Your task to perform on an android device: check android version Image 0: 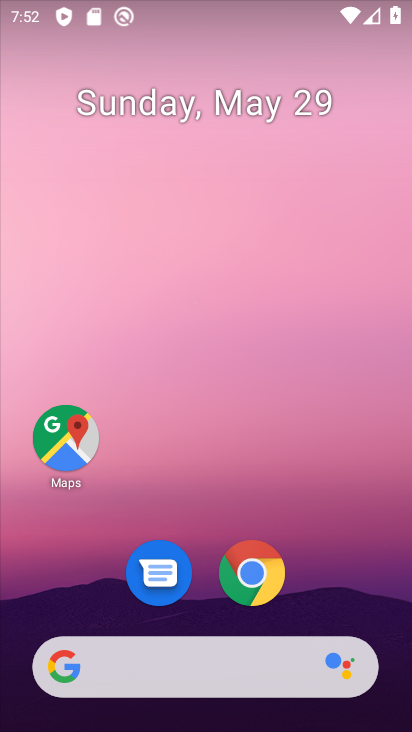
Step 0: drag from (239, 673) to (86, 125)
Your task to perform on an android device: check android version Image 1: 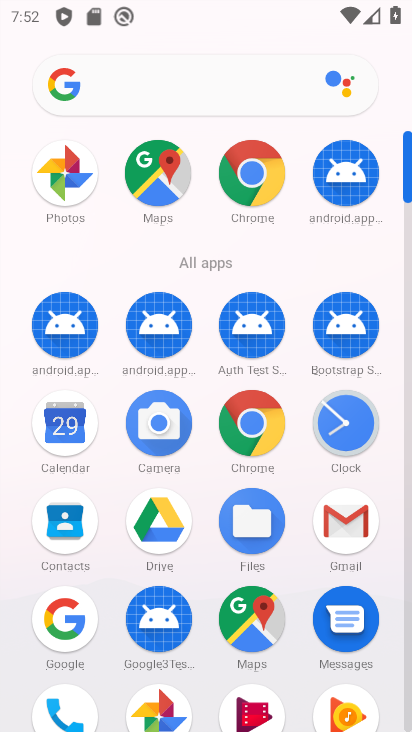
Step 1: drag from (257, 591) to (223, 170)
Your task to perform on an android device: check android version Image 2: 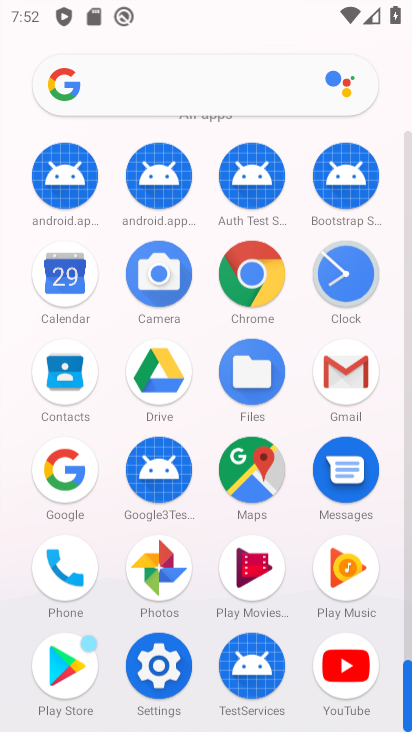
Step 2: drag from (267, 538) to (217, 210)
Your task to perform on an android device: check android version Image 3: 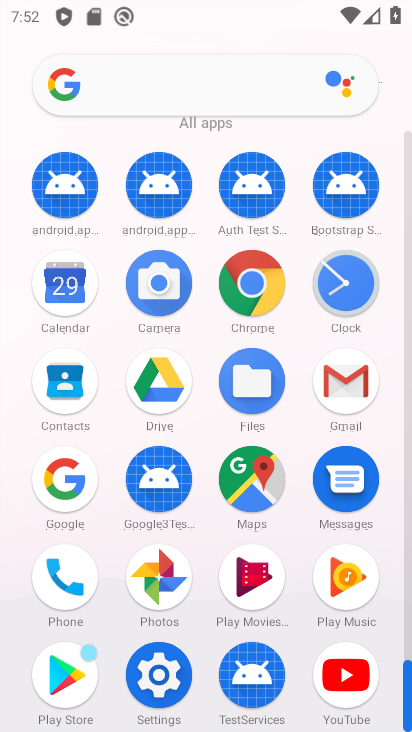
Step 3: click (155, 682)
Your task to perform on an android device: check android version Image 4: 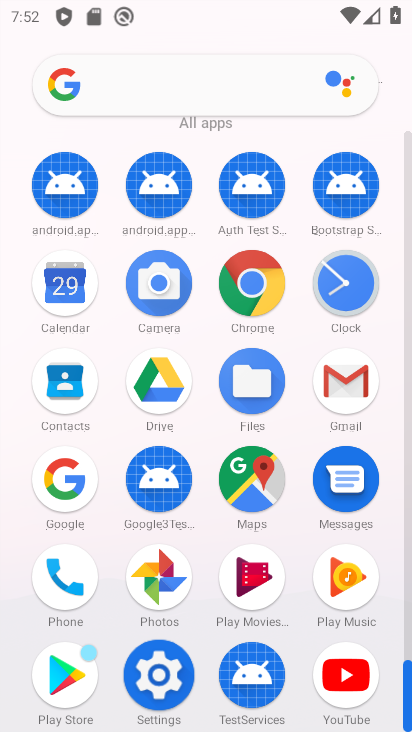
Step 4: click (155, 682)
Your task to perform on an android device: check android version Image 5: 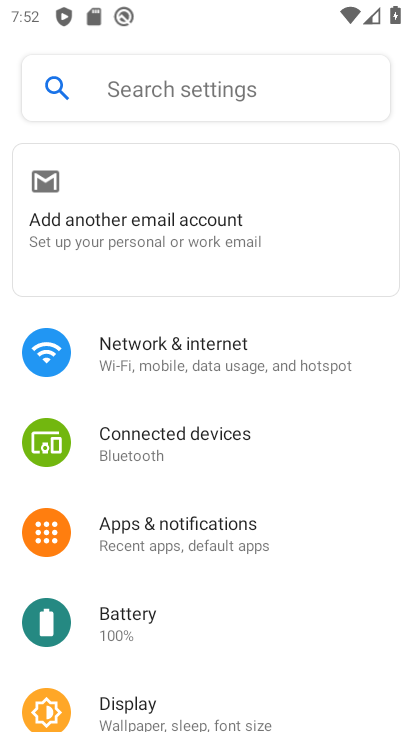
Step 5: drag from (183, 565) to (183, 336)
Your task to perform on an android device: check android version Image 6: 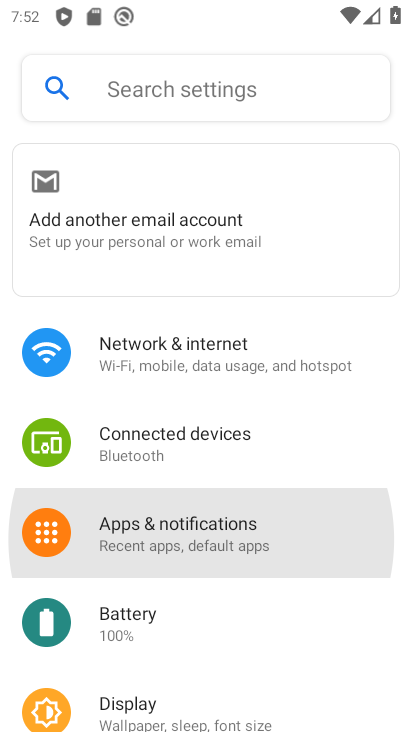
Step 6: drag from (191, 483) to (196, 153)
Your task to perform on an android device: check android version Image 7: 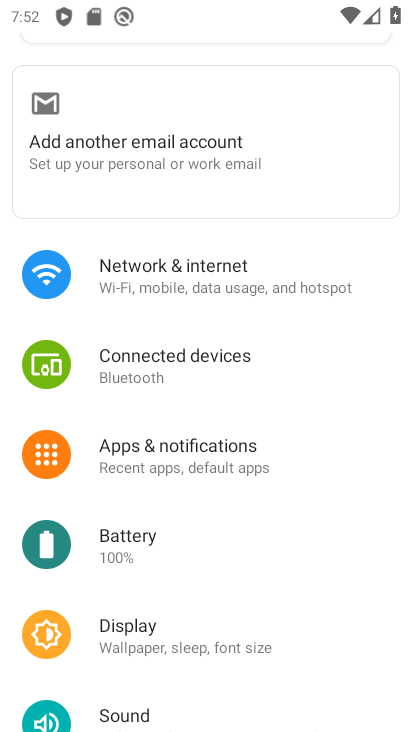
Step 7: drag from (168, 438) to (154, 245)
Your task to perform on an android device: check android version Image 8: 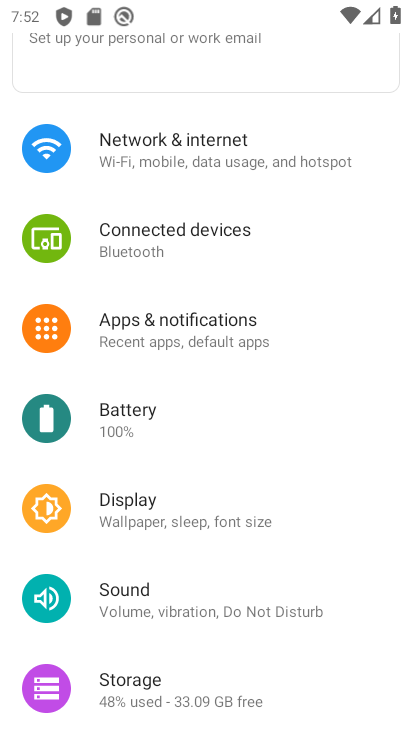
Step 8: click (154, 155)
Your task to perform on an android device: check android version Image 9: 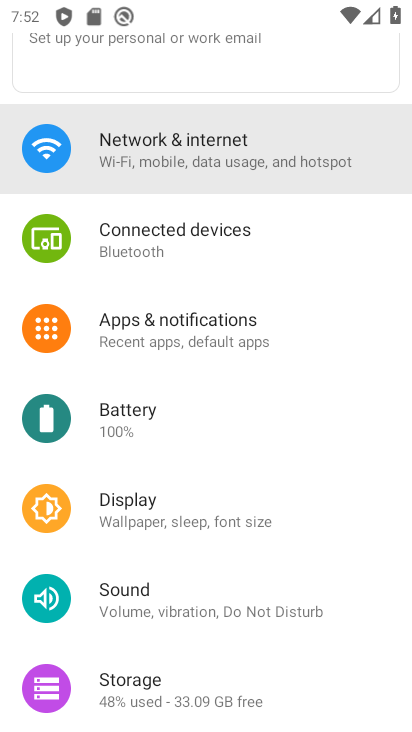
Step 9: click (148, 348)
Your task to perform on an android device: check android version Image 10: 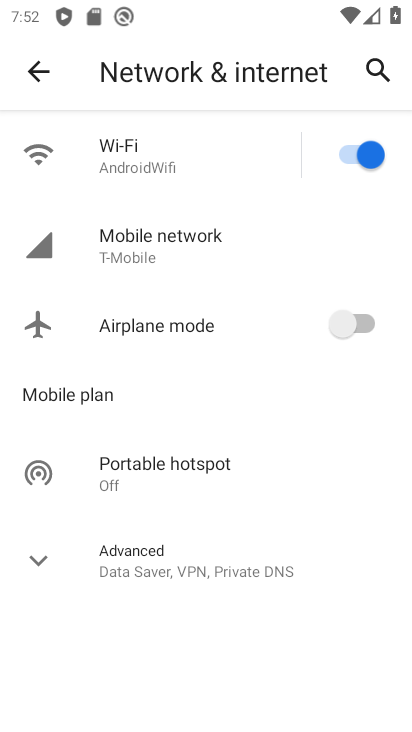
Step 10: drag from (122, 498) to (147, 265)
Your task to perform on an android device: check android version Image 11: 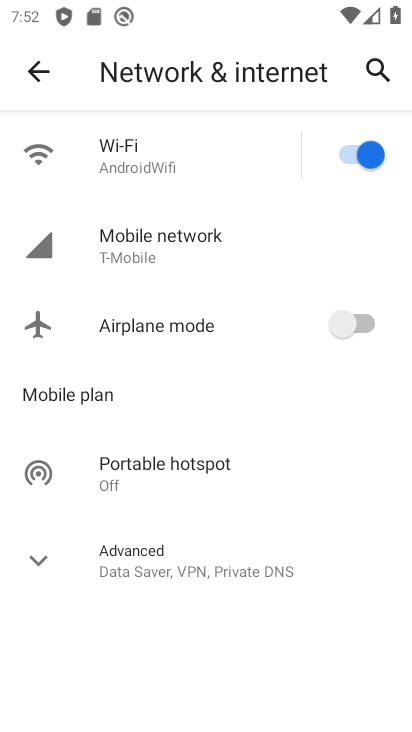
Step 11: click (37, 75)
Your task to perform on an android device: check android version Image 12: 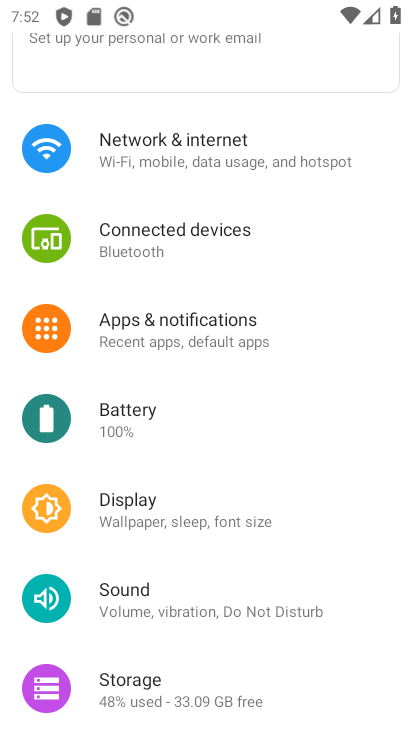
Step 12: drag from (168, 641) to (152, 215)
Your task to perform on an android device: check android version Image 13: 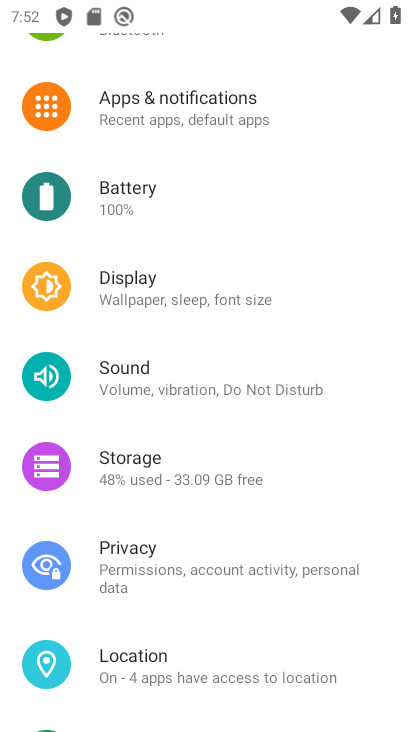
Step 13: drag from (194, 459) to (177, 97)
Your task to perform on an android device: check android version Image 14: 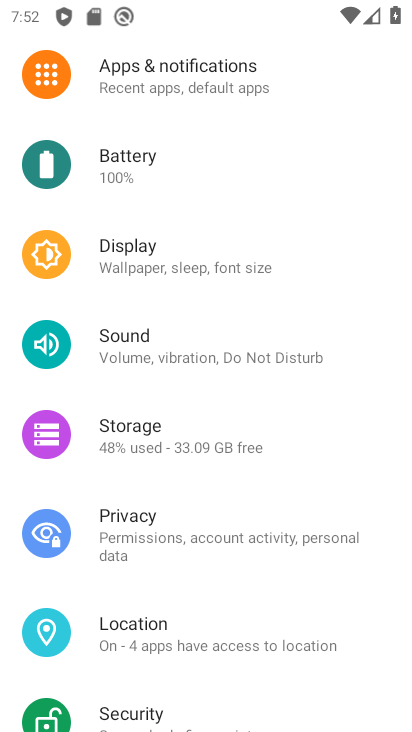
Step 14: drag from (177, 400) to (177, 51)
Your task to perform on an android device: check android version Image 15: 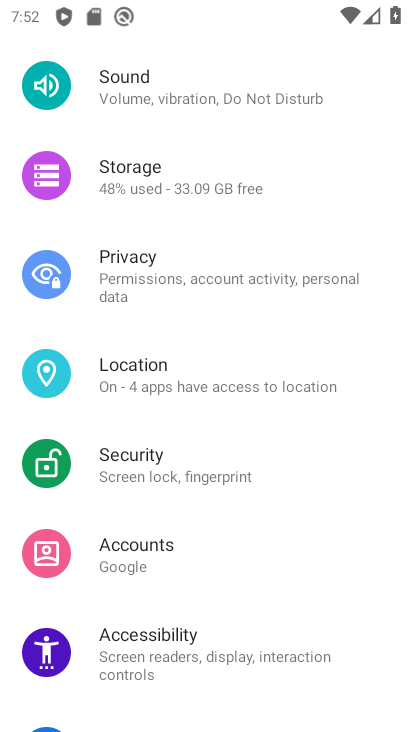
Step 15: drag from (222, 457) to (222, 158)
Your task to perform on an android device: check android version Image 16: 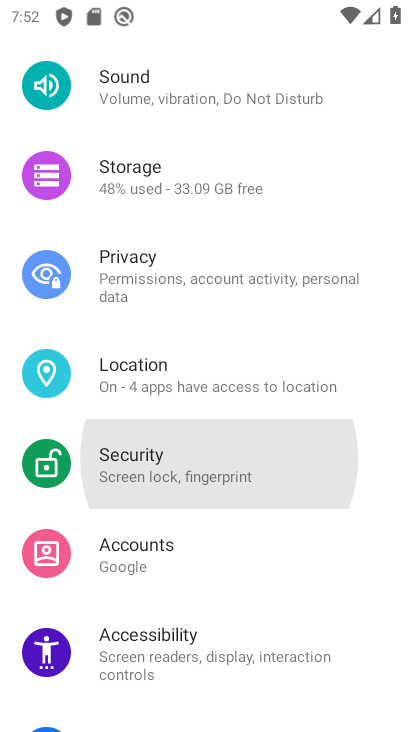
Step 16: drag from (225, 543) to (232, 160)
Your task to perform on an android device: check android version Image 17: 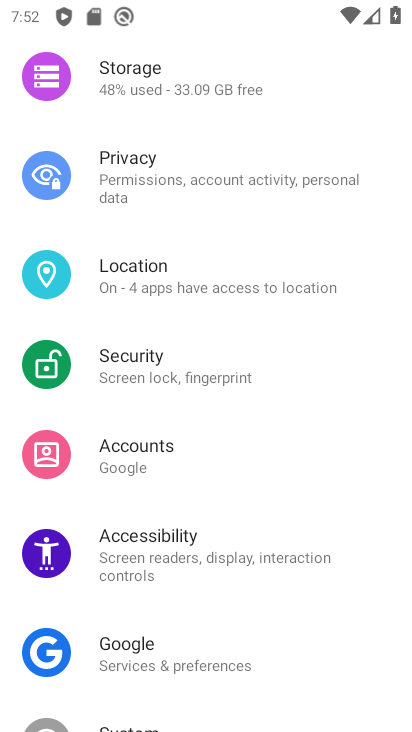
Step 17: drag from (233, 541) to (217, 217)
Your task to perform on an android device: check android version Image 18: 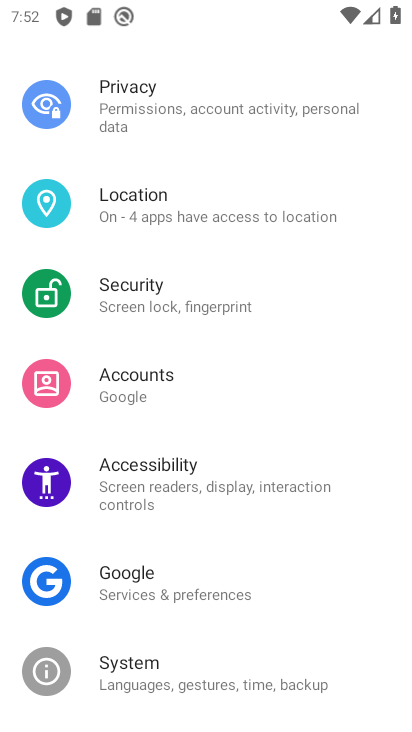
Step 18: drag from (165, 566) to (163, 157)
Your task to perform on an android device: check android version Image 19: 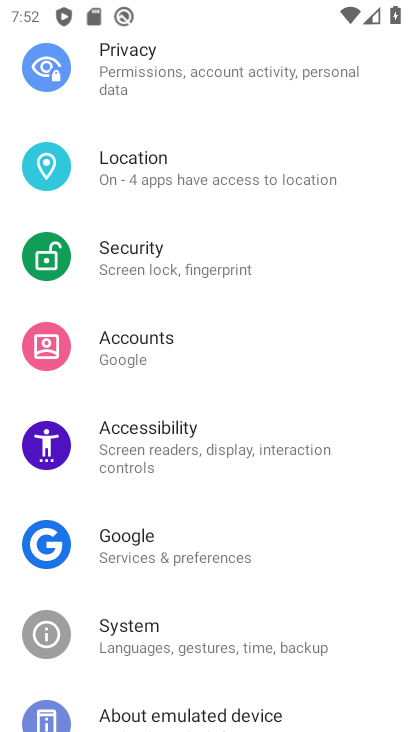
Step 19: drag from (156, 591) to (129, 177)
Your task to perform on an android device: check android version Image 20: 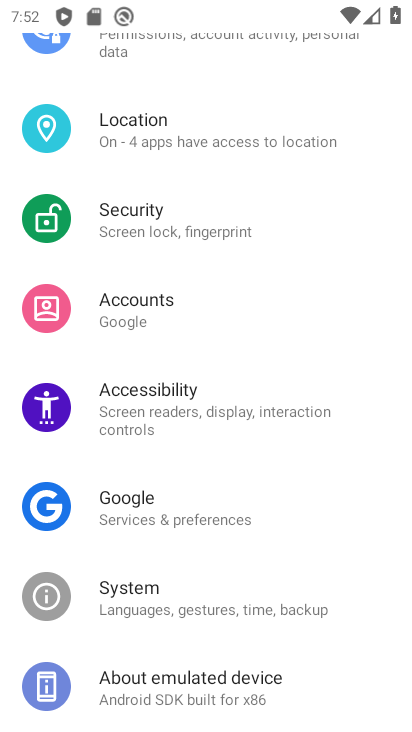
Step 20: drag from (139, 605) to (135, 194)
Your task to perform on an android device: check android version Image 21: 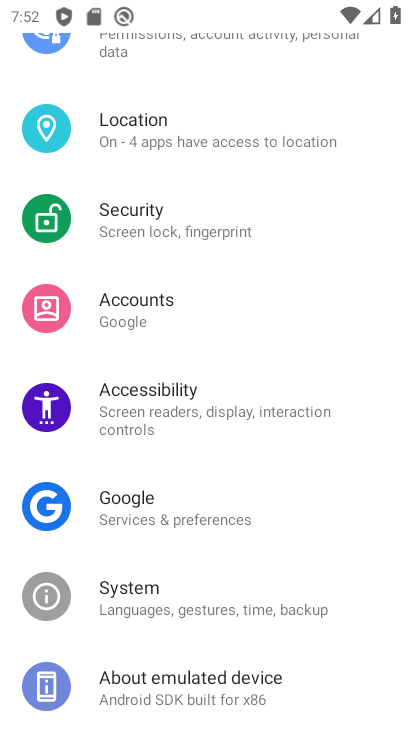
Step 21: click (161, 698)
Your task to perform on an android device: check android version Image 22: 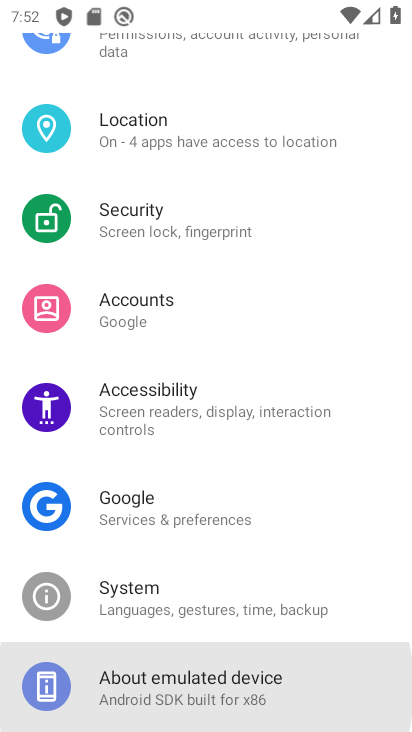
Step 22: click (162, 697)
Your task to perform on an android device: check android version Image 23: 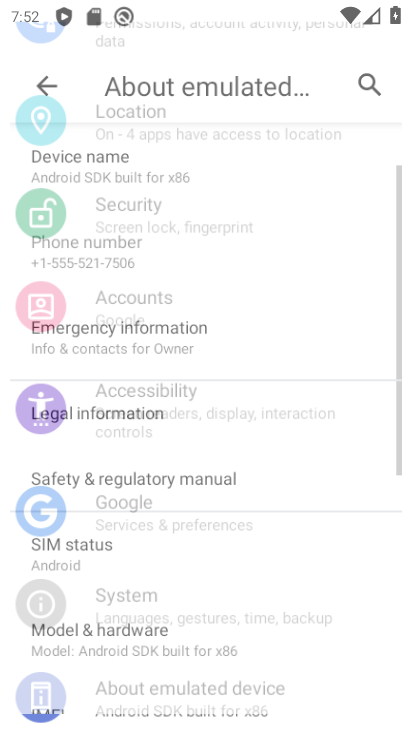
Step 23: click (162, 697)
Your task to perform on an android device: check android version Image 24: 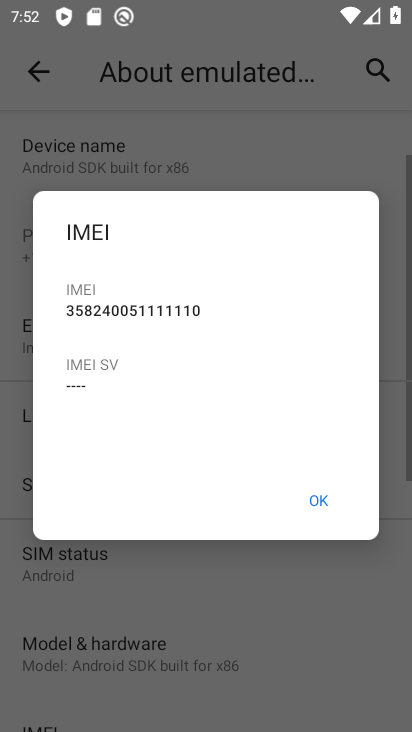
Step 24: click (317, 503)
Your task to perform on an android device: check android version Image 25: 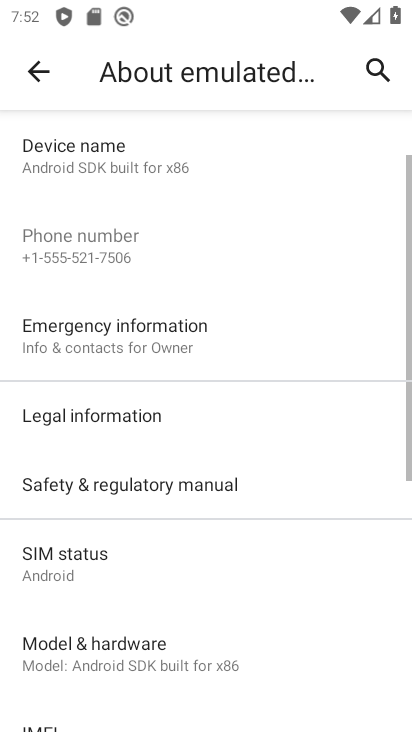
Step 25: drag from (238, 538) to (158, 148)
Your task to perform on an android device: check android version Image 26: 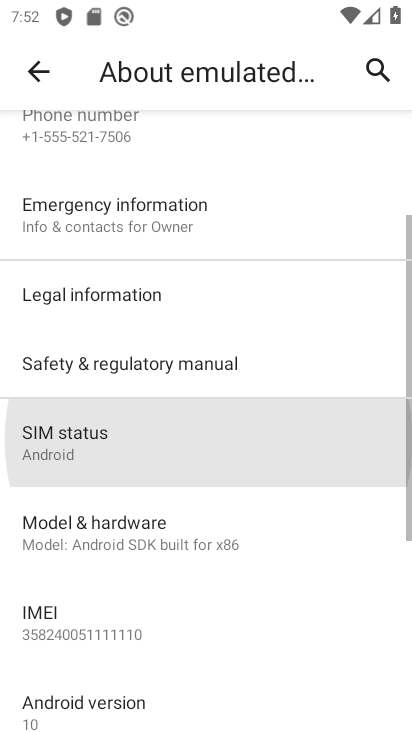
Step 26: drag from (141, 498) to (100, 25)
Your task to perform on an android device: check android version Image 27: 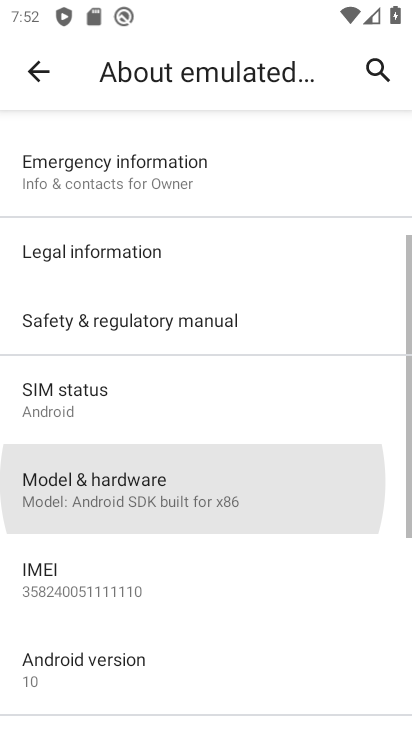
Step 27: drag from (134, 473) to (134, 194)
Your task to perform on an android device: check android version Image 28: 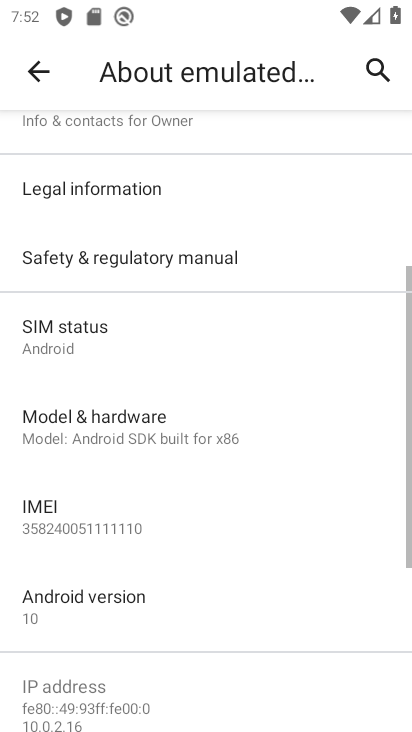
Step 28: drag from (184, 507) to (209, 221)
Your task to perform on an android device: check android version Image 29: 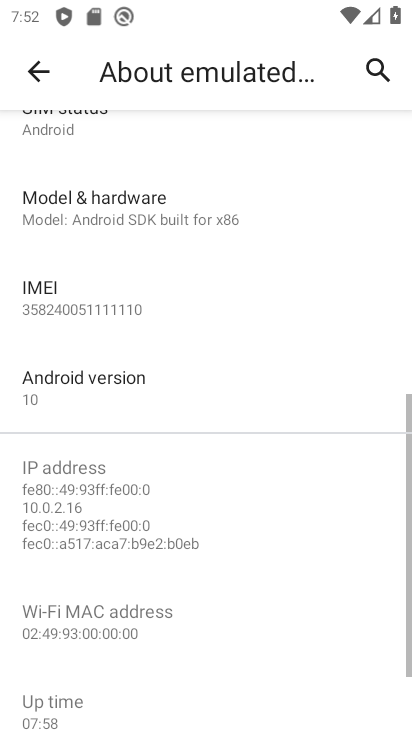
Step 29: drag from (210, 542) to (210, 226)
Your task to perform on an android device: check android version Image 30: 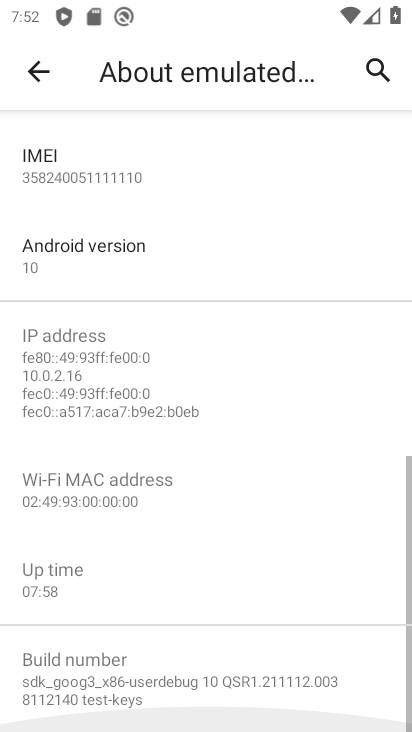
Step 30: click (190, 267)
Your task to perform on an android device: check android version Image 31: 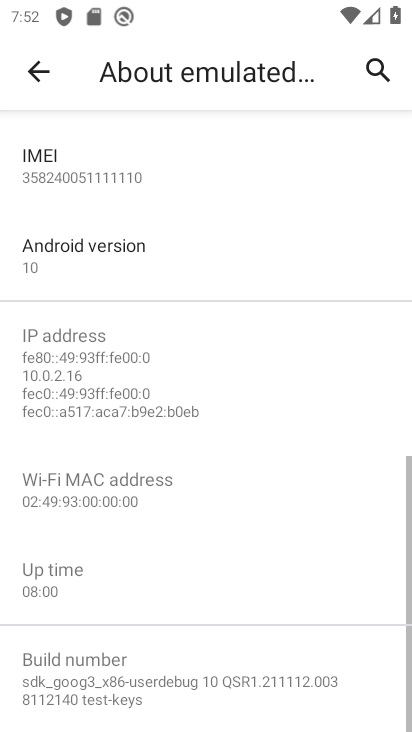
Step 31: click (86, 250)
Your task to perform on an android device: check android version Image 32: 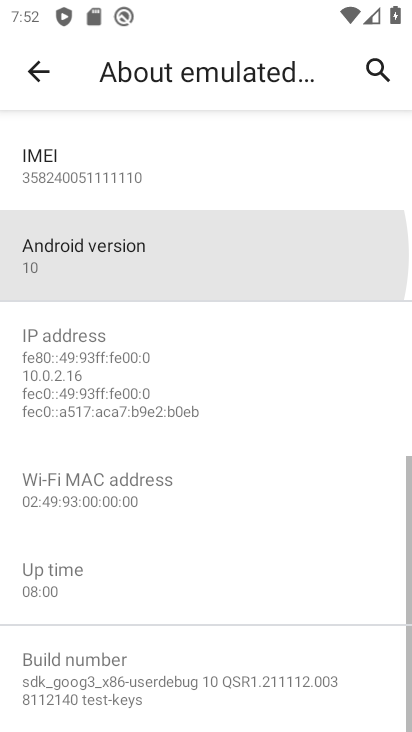
Step 32: click (86, 250)
Your task to perform on an android device: check android version Image 33: 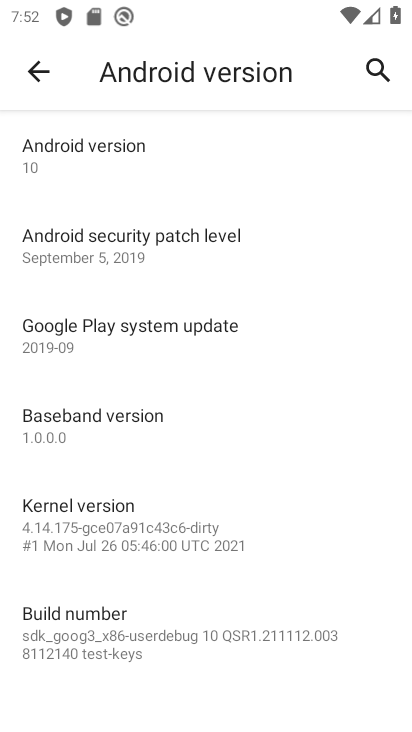
Step 33: task complete